Your task to perform on an android device: Open calendar and show me the third week of next month Image 0: 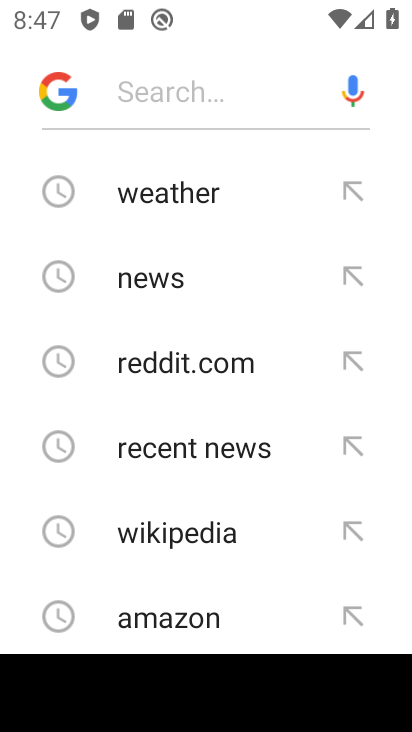
Step 0: press home button
Your task to perform on an android device: Open calendar and show me the third week of next month Image 1: 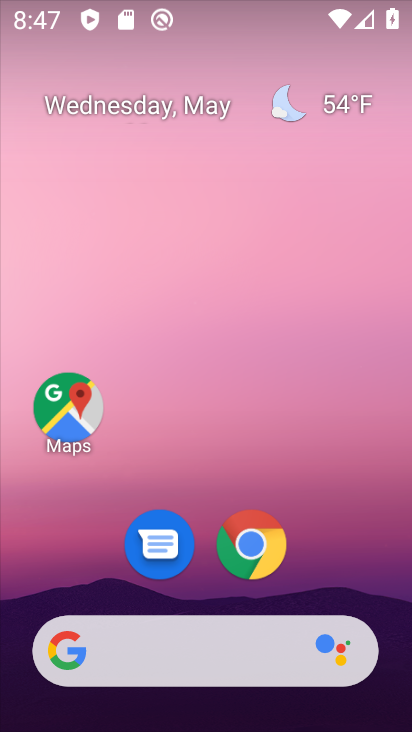
Step 1: drag from (202, 591) to (243, 110)
Your task to perform on an android device: Open calendar and show me the third week of next month Image 2: 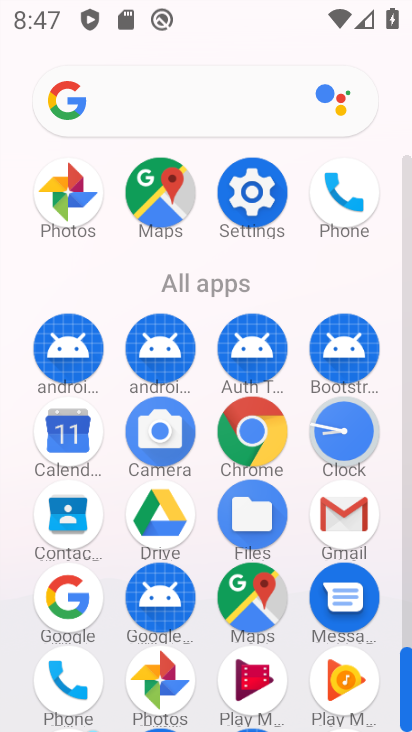
Step 2: click (67, 430)
Your task to perform on an android device: Open calendar and show me the third week of next month Image 3: 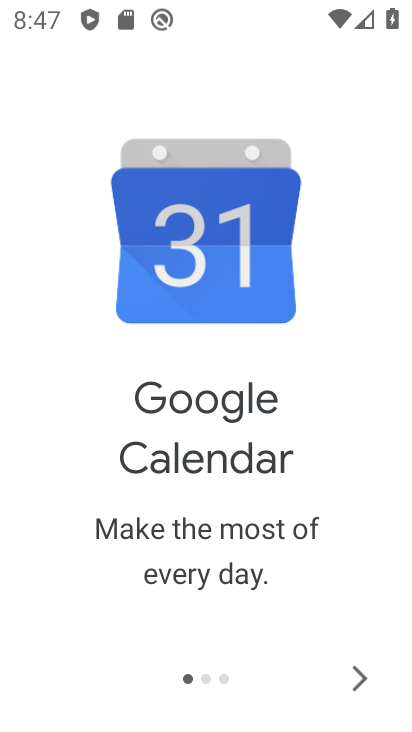
Step 3: click (362, 700)
Your task to perform on an android device: Open calendar and show me the third week of next month Image 4: 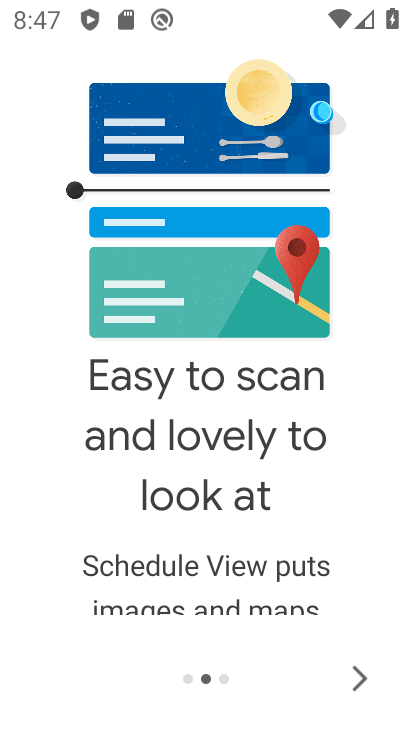
Step 4: click (362, 700)
Your task to perform on an android device: Open calendar and show me the third week of next month Image 5: 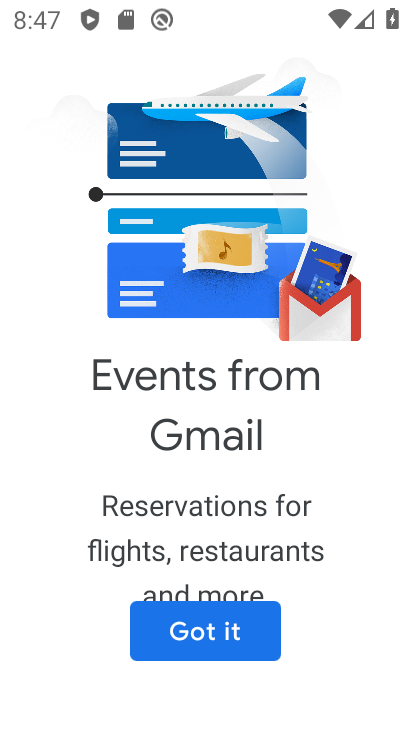
Step 5: click (203, 604)
Your task to perform on an android device: Open calendar and show me the third week of next month Image 6: 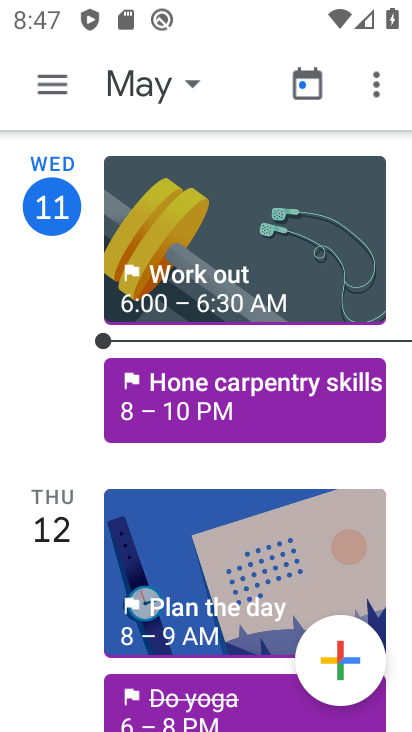
Step 6: click (148, 82)
Your task to perform on an android device: Open calendar and show me the third week of next month Image 7: 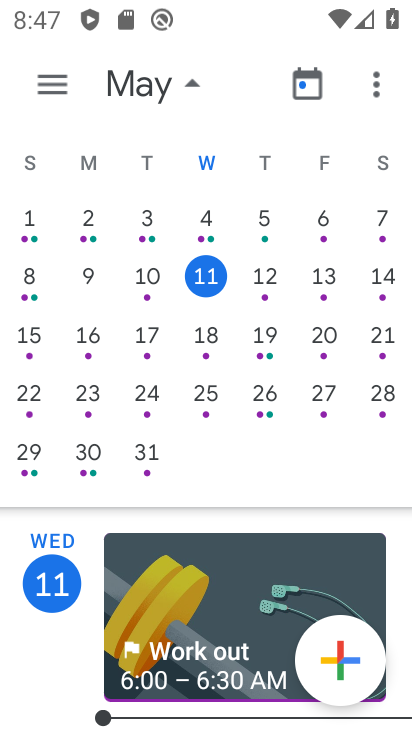
Step 7: drag from (355, 492) to (13, 397)
Your task to perform on an android device: Open calendar and show me the third week of next month Image 8: 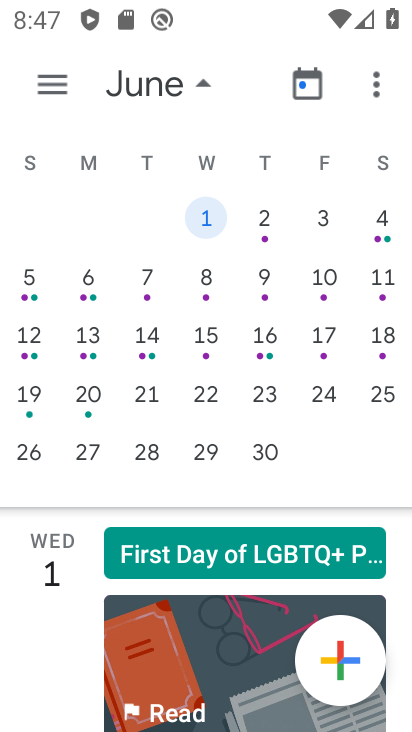
Step 8: click (340, 212)
Your task to perform on an android device: Open calendar and show me the third week of next month Image 9: 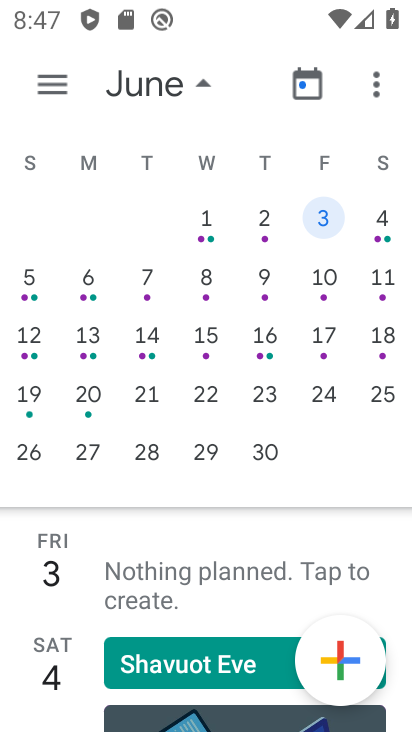
Step 9: task complete